Your task to perform on an android device: delete browsing data in the chrome app Image 0: 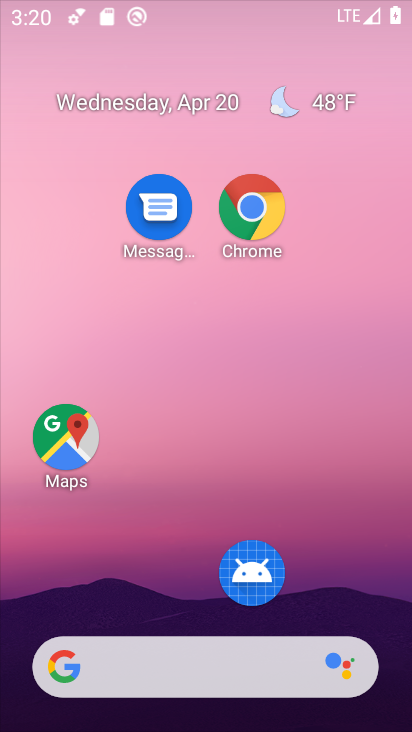
Step 0: drag from (240, 573) to (265, 237)
Your task to perform on an android device: delete browsing data in the chrome app Image 1: 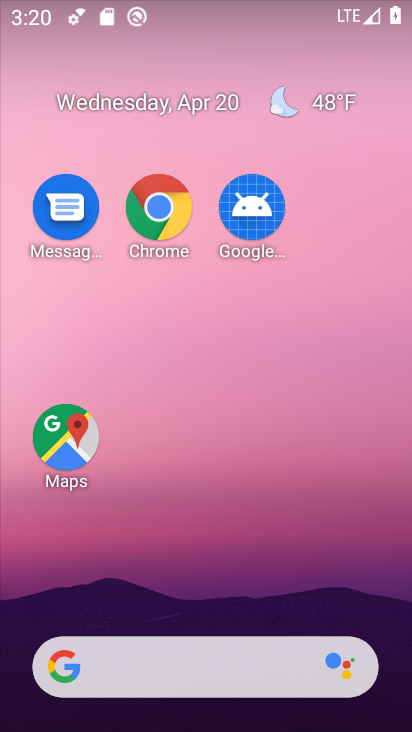
Step 1: click (170, 207)
Your task to perform on an android device: delete browsing data in the chrome app Image 2: 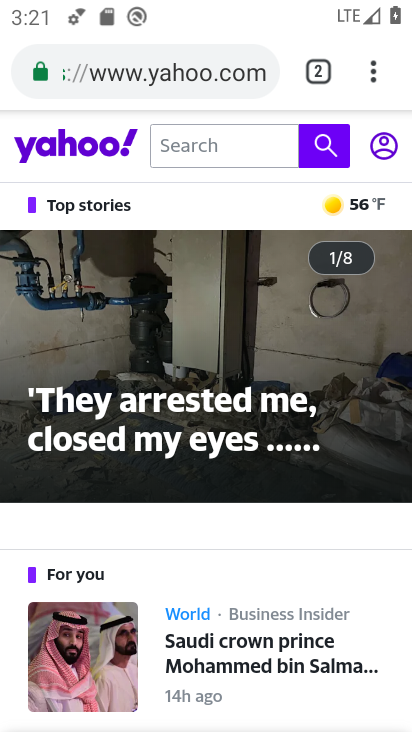
Step 2: click (375, 73)
Your task to perform on an android device: delete browsing data in the chrome app Image 3: 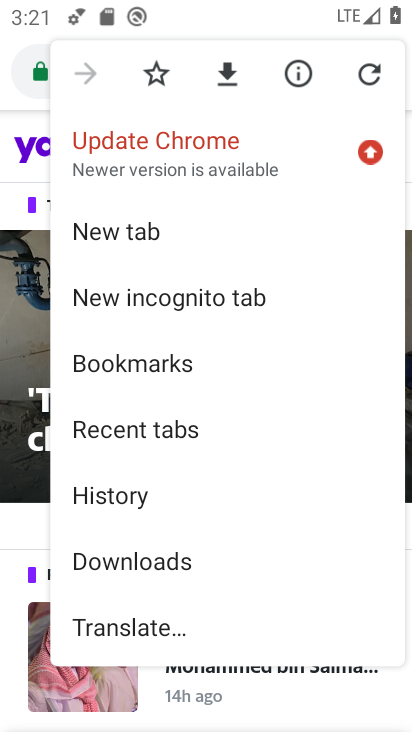
Step 3: click (163, 490)
Your task to perform on an android device: delete browsing data in the chrome app Image 4: 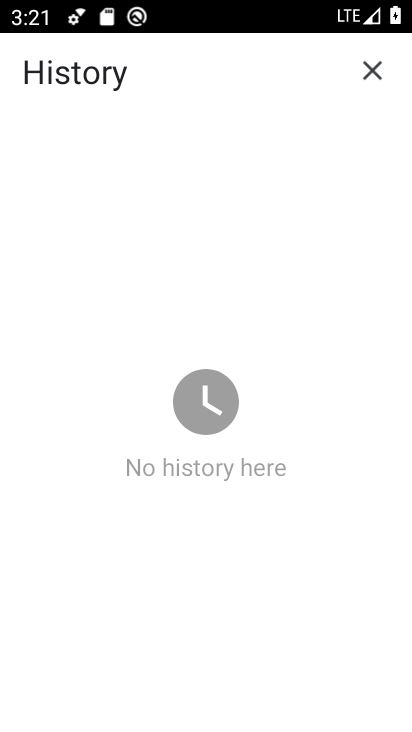
Step 4: task complete